Your task to perform on an android device: open app "Contacts" (install if not already installed) Image 0: 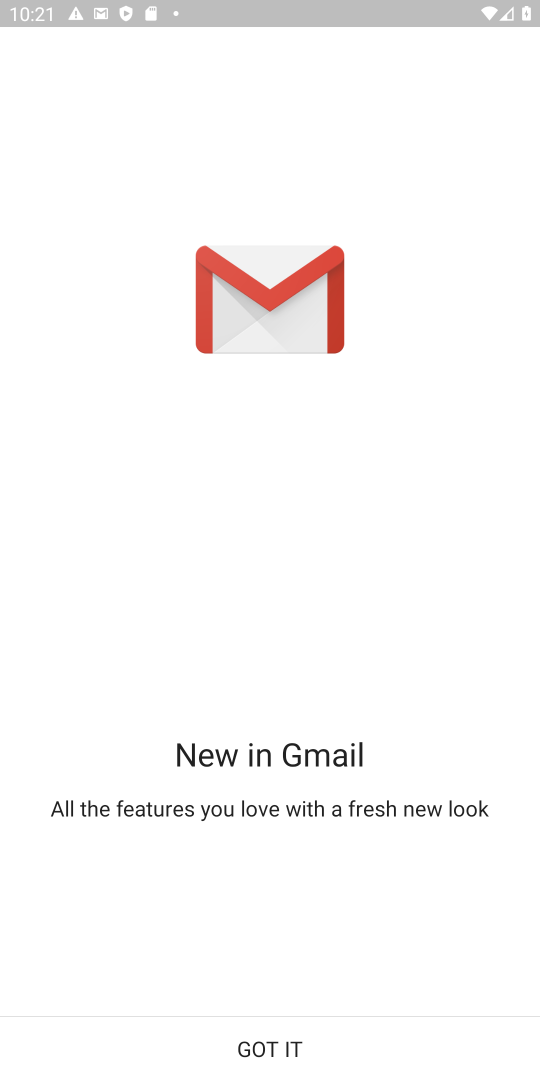
Step 0: press back button
Your task to perform on an android device: open app "Contacts" (install if not already installed) Image 1: 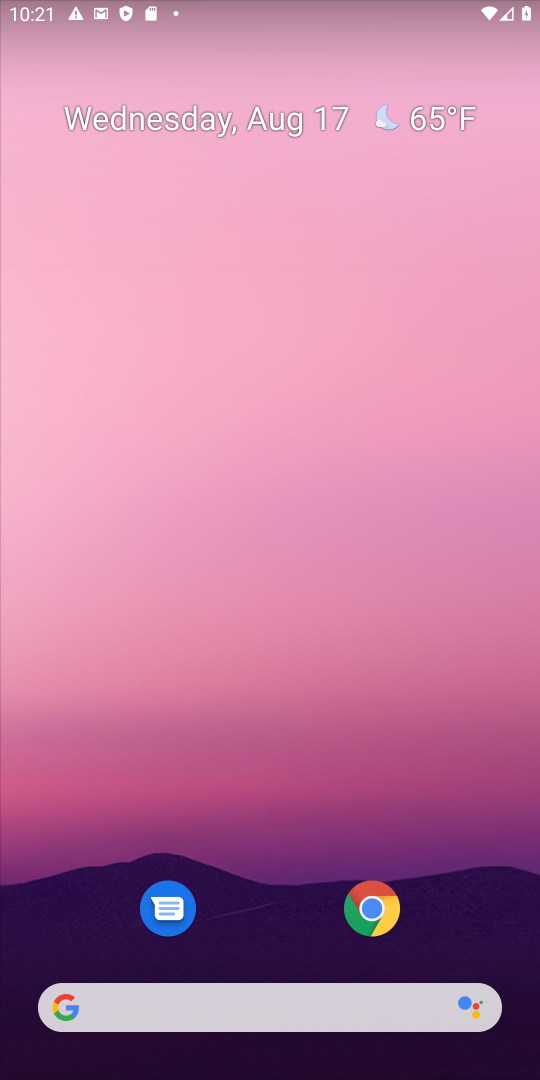
Step 1: click (308, 4)
Your task to perform on an android device: open app "Contacts" (install if not already installed) Image 2: 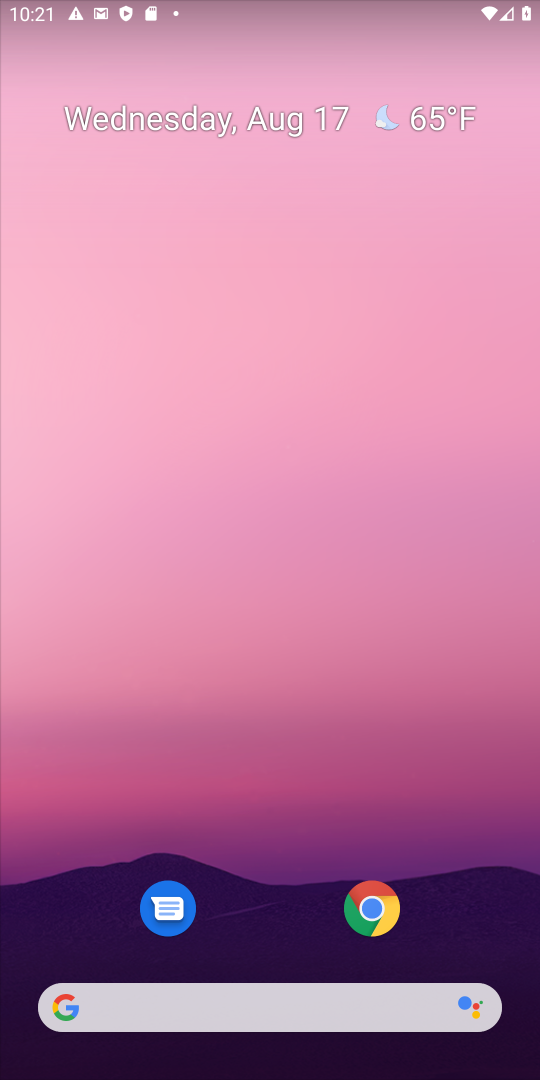
Step 2: drag from (264, 821) to (269, 20)
Your task to perform on an android device: open app "Contacts" (install if not already installed) Image 3: 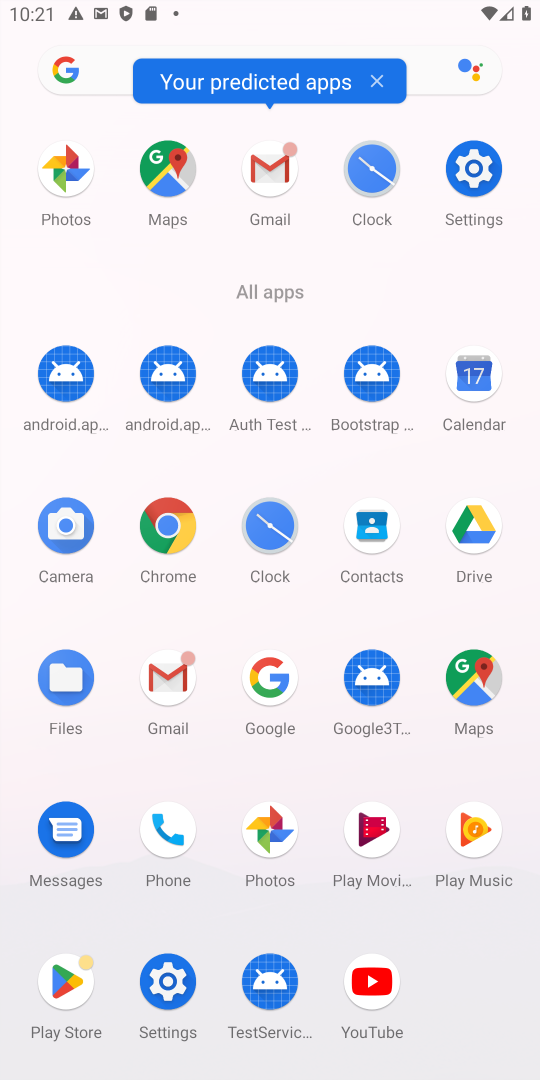
Step 3: click (381, 542)
Your task to perform on an android device: open app "Contacts" (install if not already installed) Image 4: 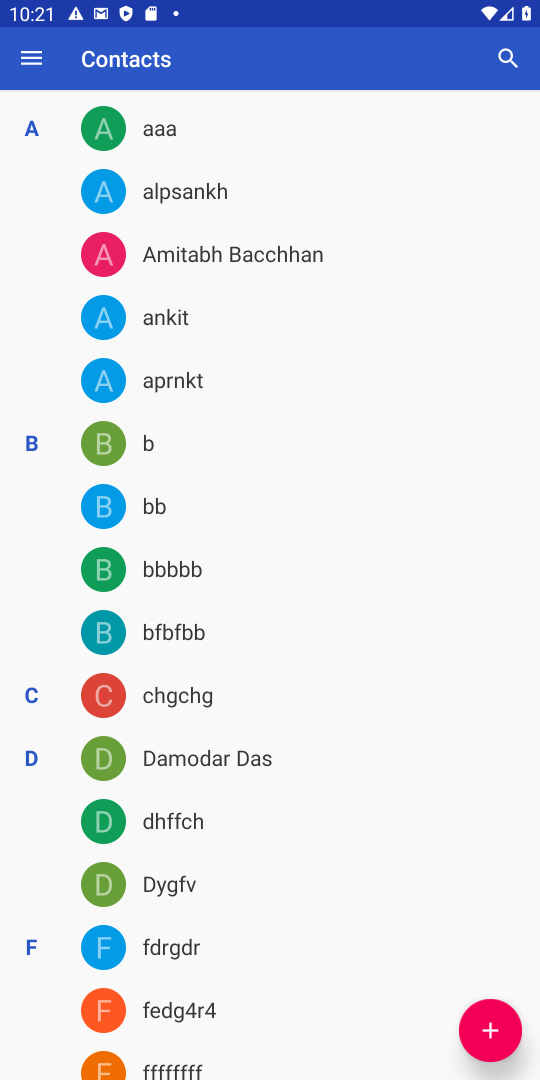
Step 4: click (483, 1036)
Your task to perform on an android device: open app "Contacts" (install if not already installed) Image 5: 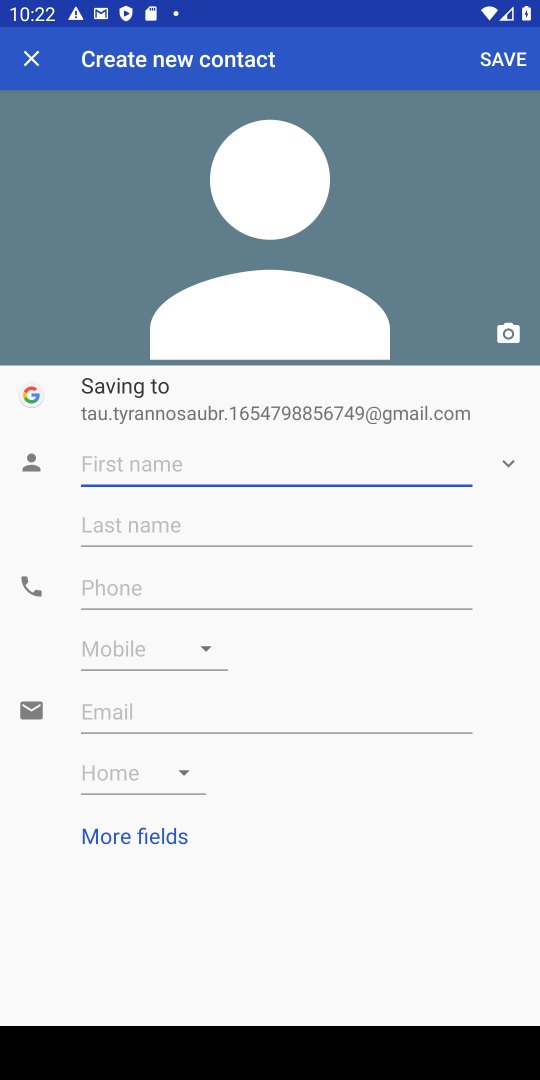
Step 5: click (136, 470)
Your task to perform on an android device: open app "Contacts" (install if not already installed) Image 6: 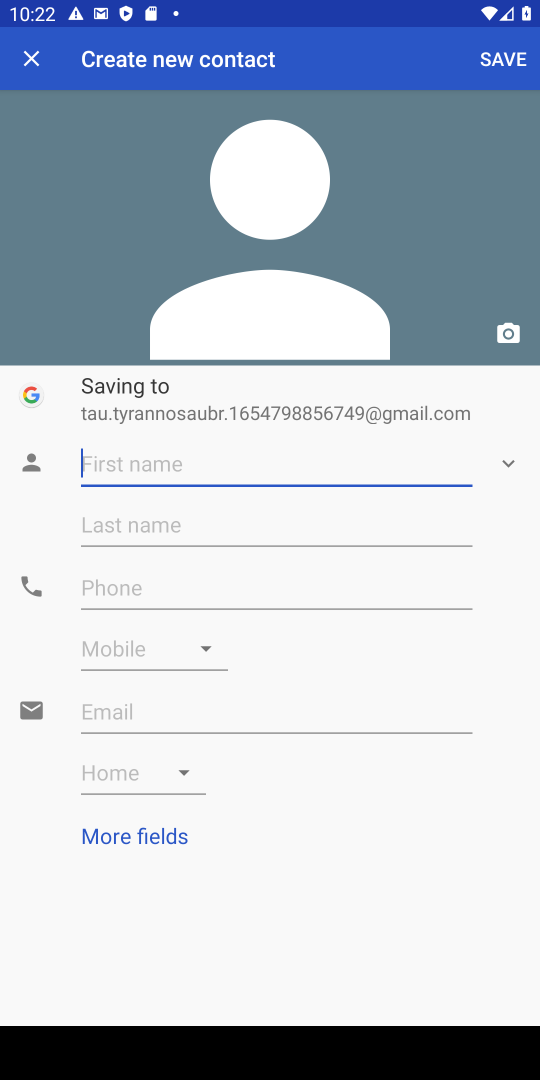
Step 6: type "fbbf"
Your task to perform on an android device: open app "Contacts" (install if not already installed) Image 7: 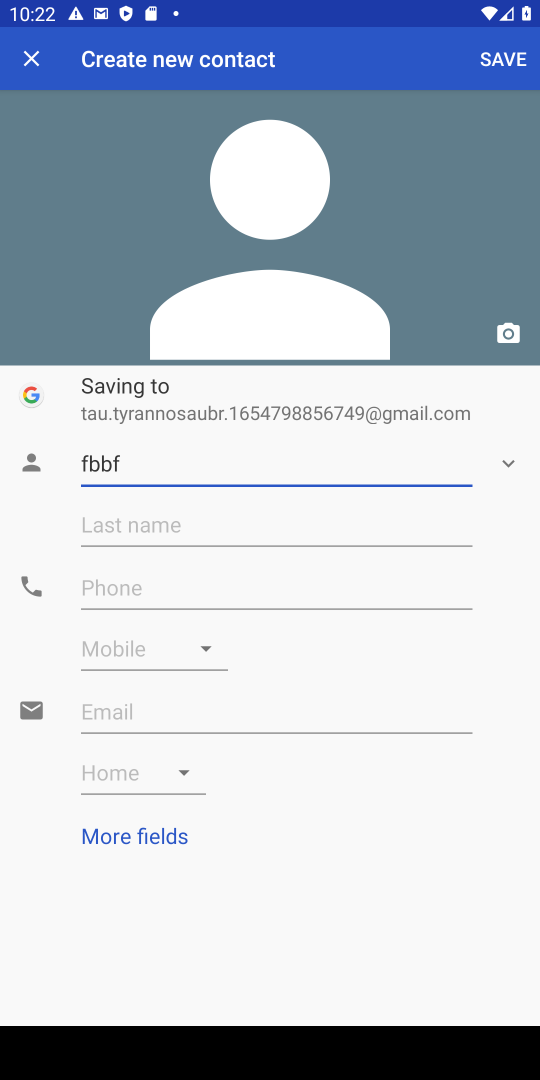
Step 7: click (139, 582)
Your task to perform on an android device: open app "Contacts" (install if not already installed) Image 8: 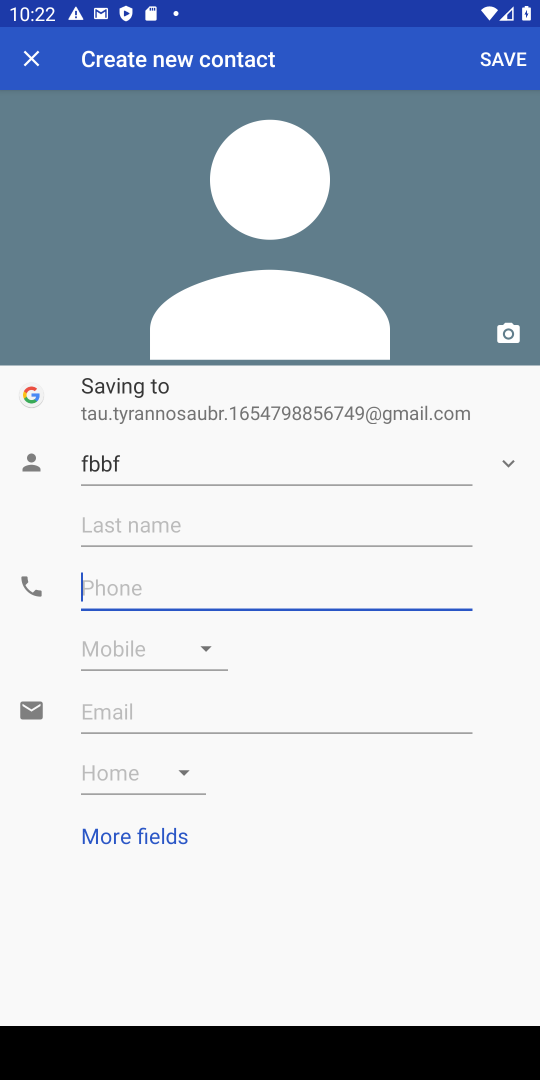
Step 8: task complete